Your task to perform on an android device: turn off wifi Image 0: 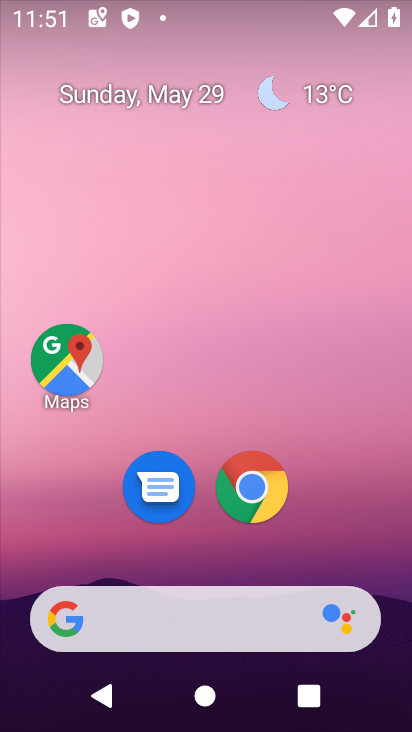
Step 0: drag from (330, 17) to (298, 449)
Your task to perform on an android device: turn off wifi Image 1: 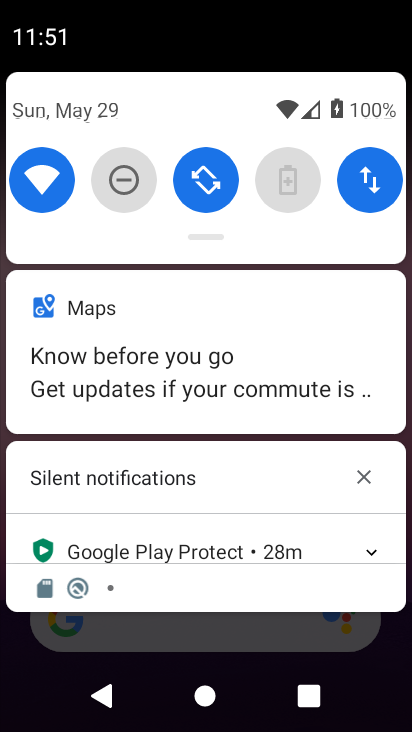
Step 1: click (55, 184)
Your task to perform on an android device: turn off wifi Image 2: 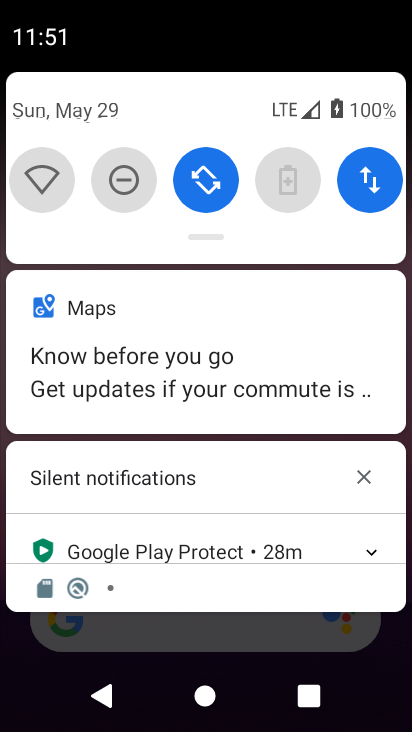
Step 2: task complete